Your task to perform on an android device: install app "Spotify" Image 0: 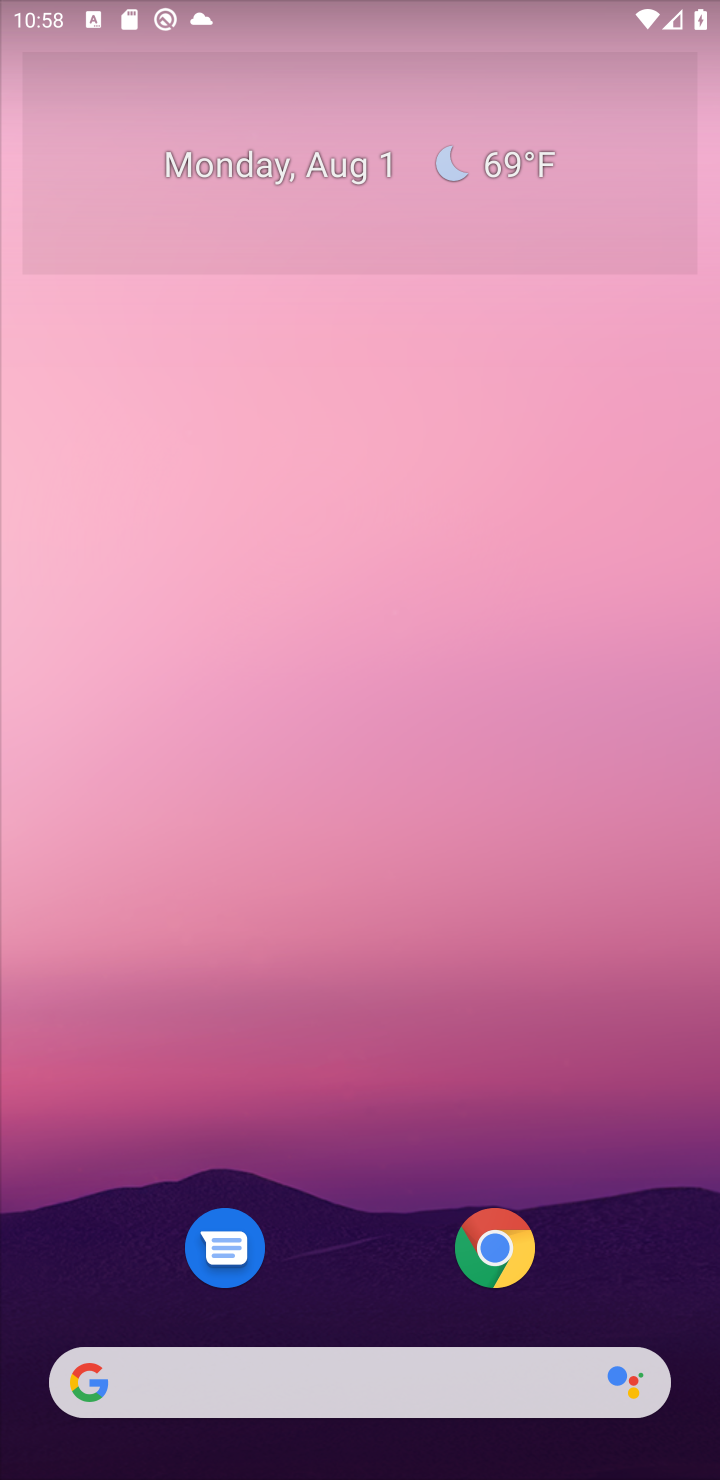
Step 0: drag from (364, 1248) to (394, 336)
Your task to perform on an android device: install app "Spotify" Image 1: 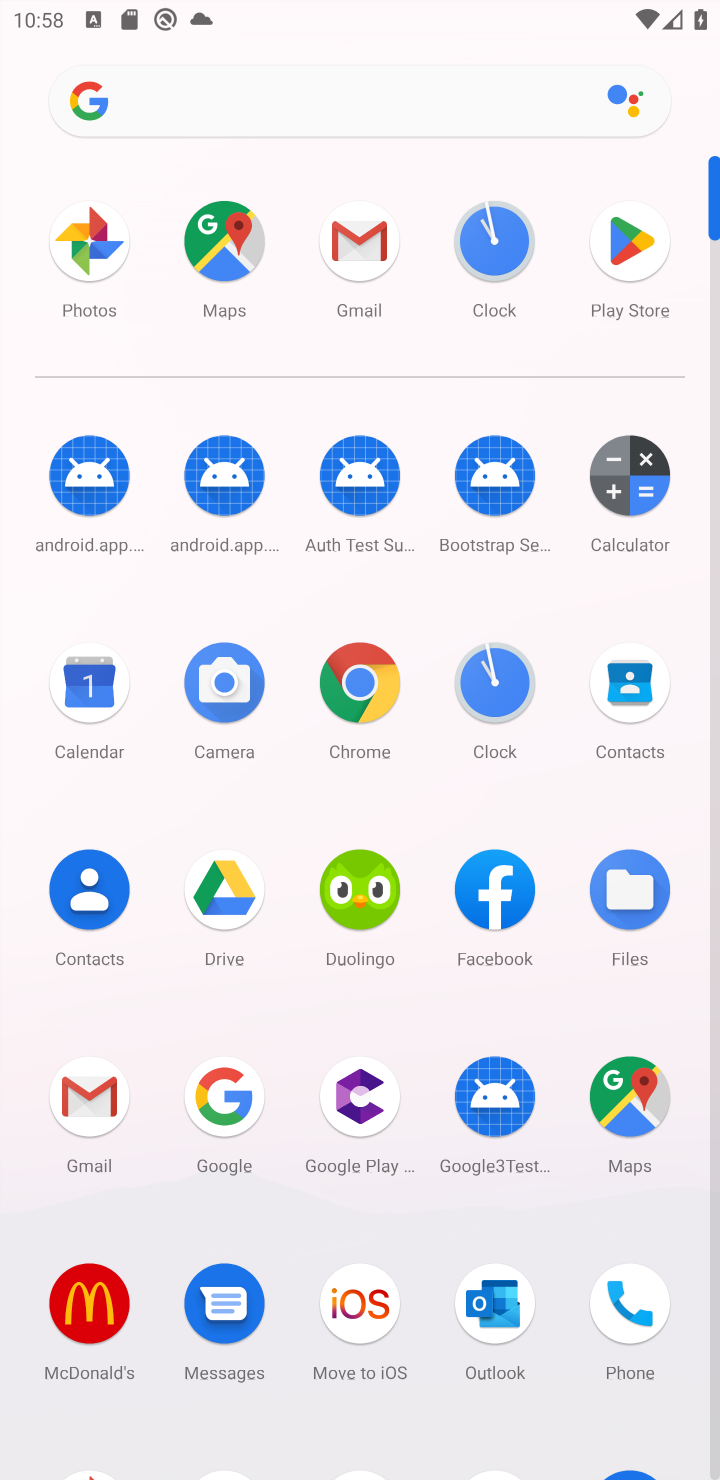
Step 1: drag from (275, 1204) to (299, 643)
Your task to perform on an android device: install app "Spotify" Image 2: 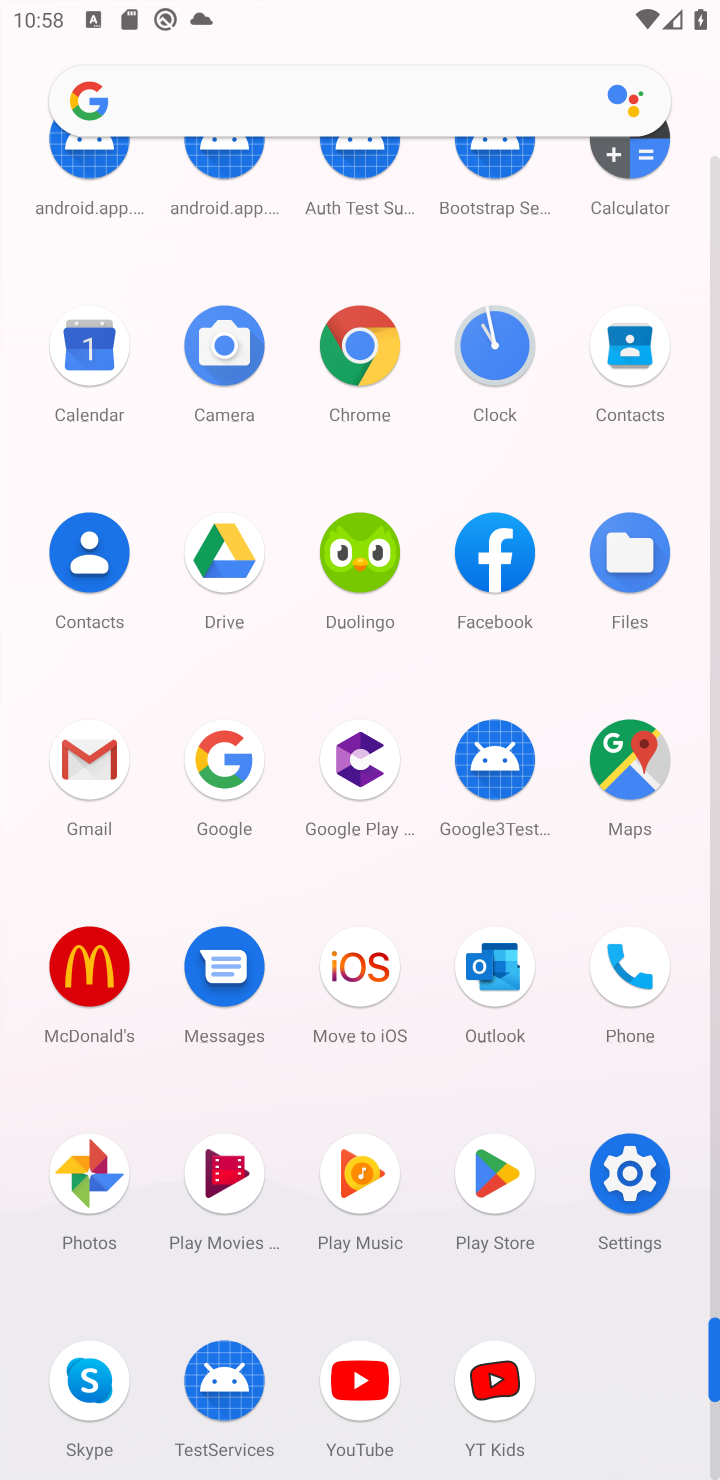
Step 2: click (483, 1164)
Your task to perform on an android device: install app "Spotify" Image 3: 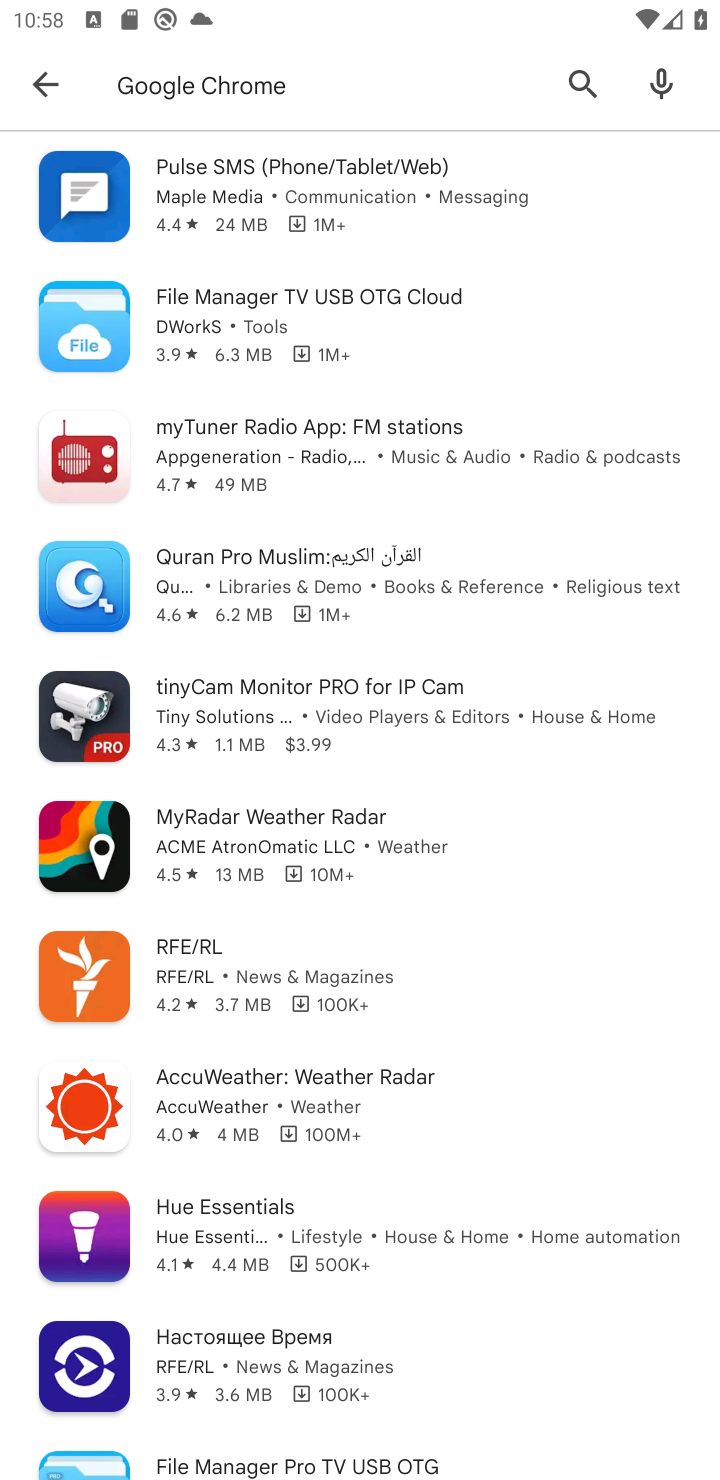
Step 3: click (429, 87)
Your task to perform on an android device: install app "Spotify" Image 4: 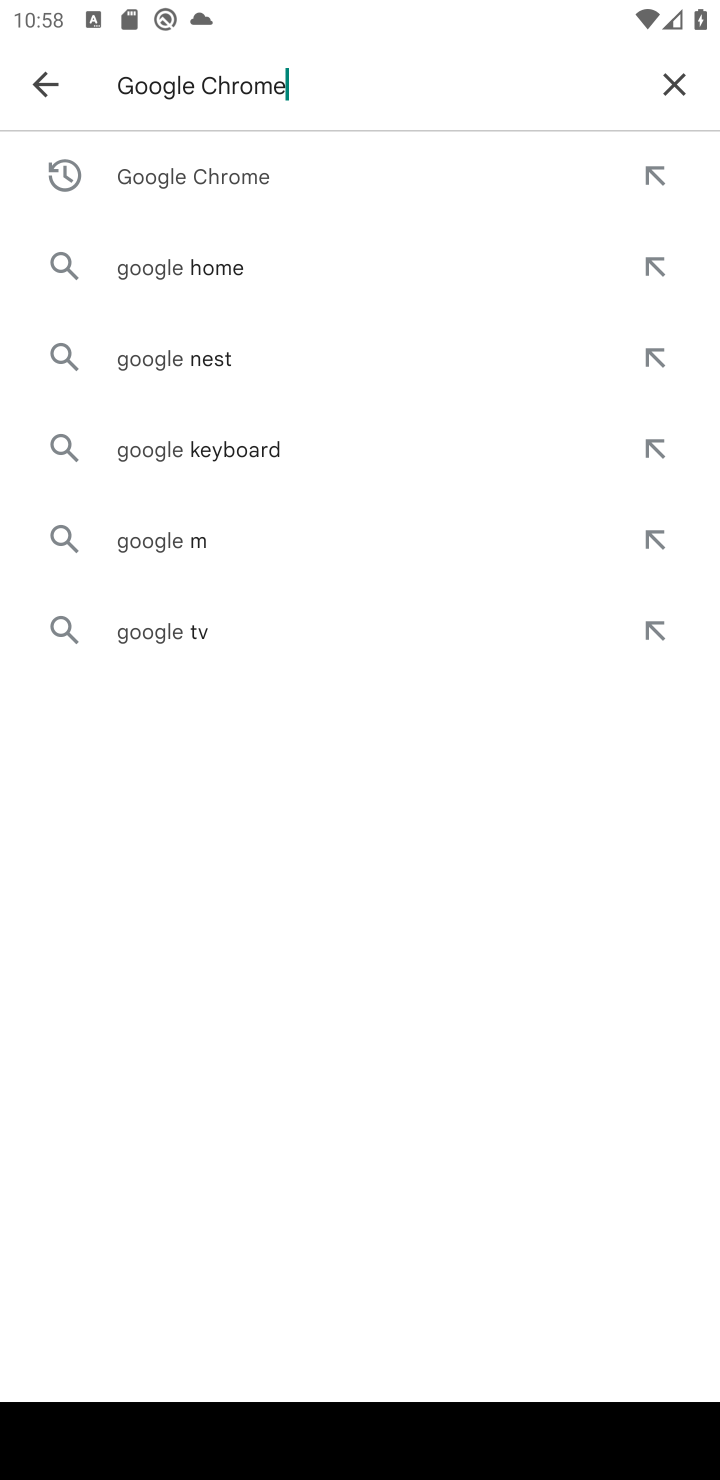
Step 4: click (689, 76)
Your task to perform on an android device: install app "Spotify" Image 5: 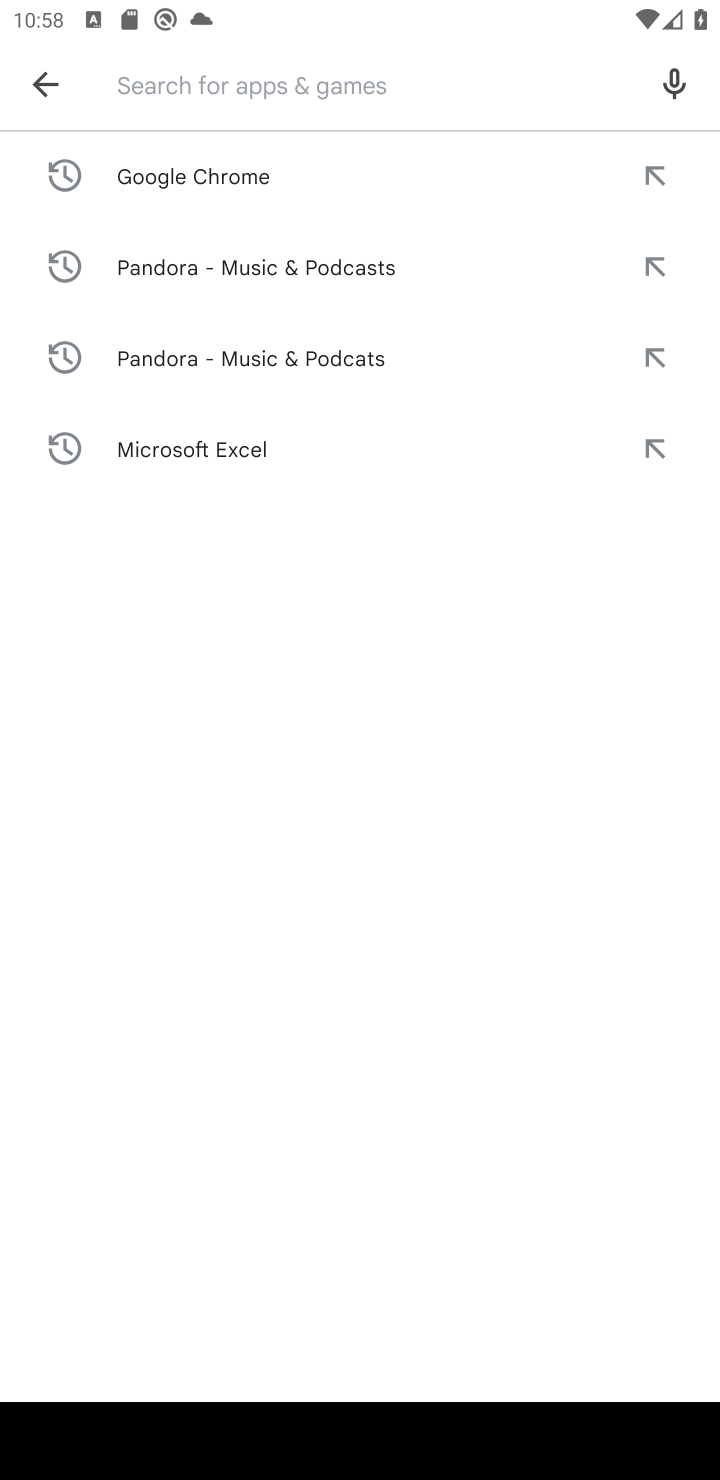
Step 5: type "Spotify"
Your task to perform on an android device: install app "Spotify" Image 6: 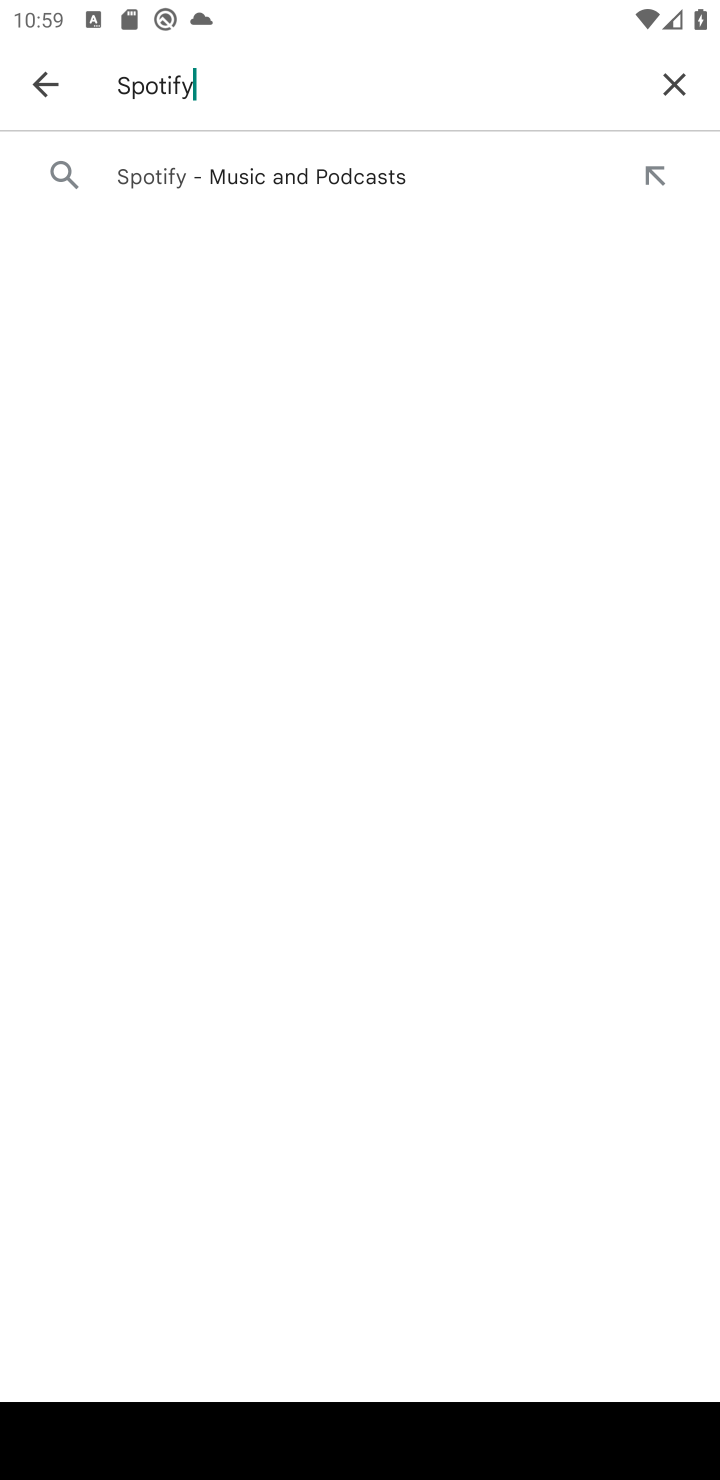
Step 6: press enter
Your task to perform on an android device: install app "Spotify" Image 7: 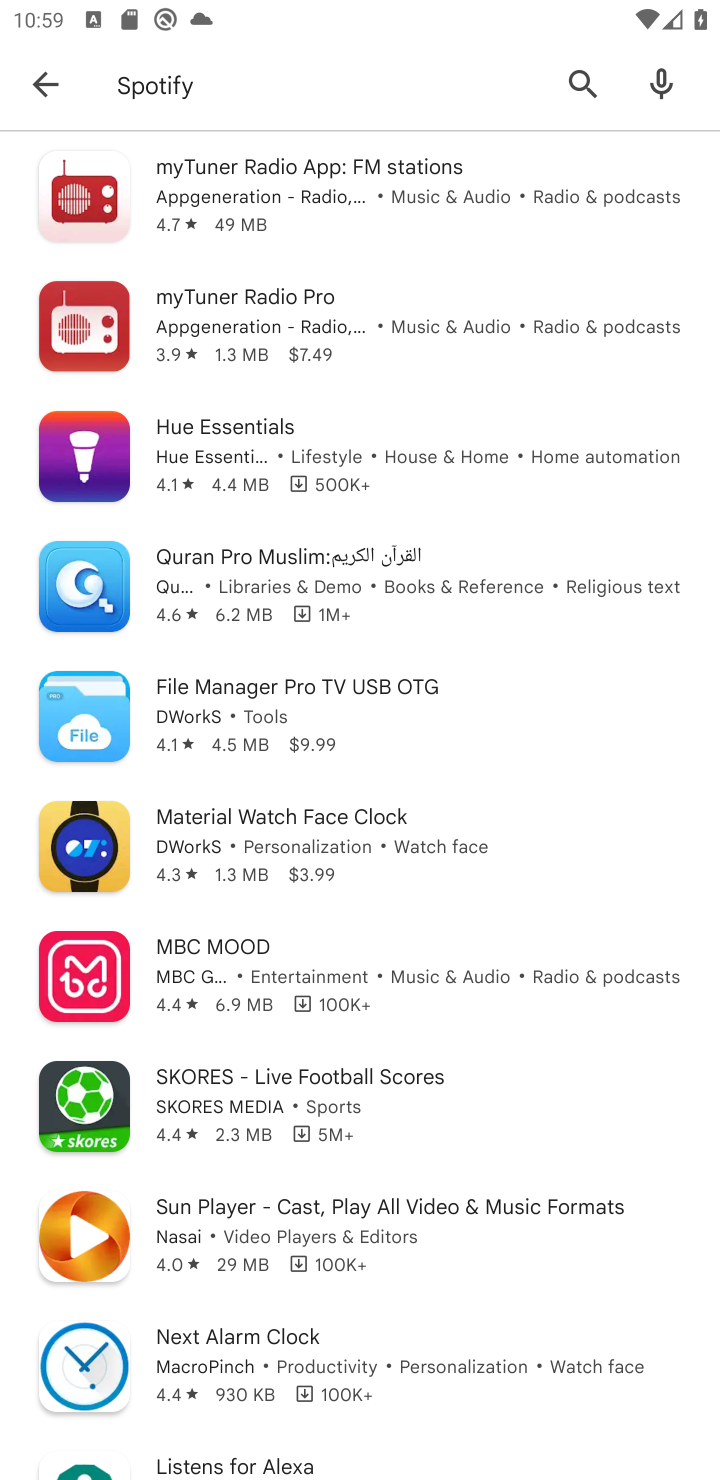
Step 7: task complete